Your task to perform on an android device: turn off wifi Image 0: 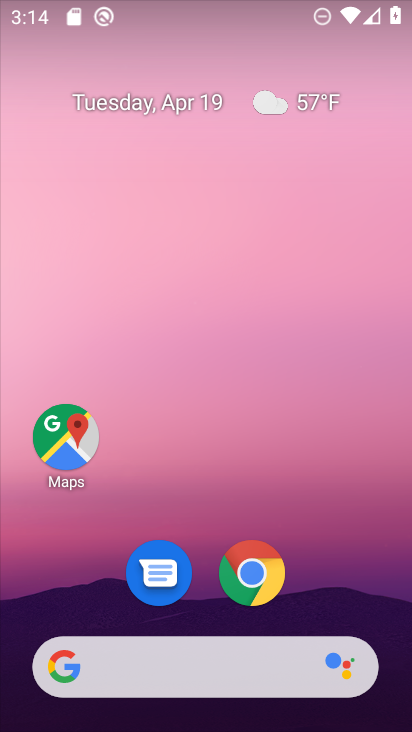
Step 0: drag from (393, 584) to (409, 7)
Your task to perform on an android device: turn off wifi Image 1: 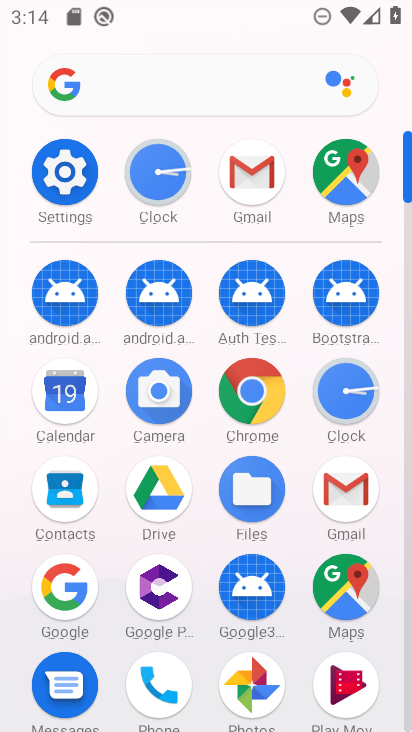
Step 1: click (64, 179)
Your task to perform on an android device: turn off wifi Image 2: 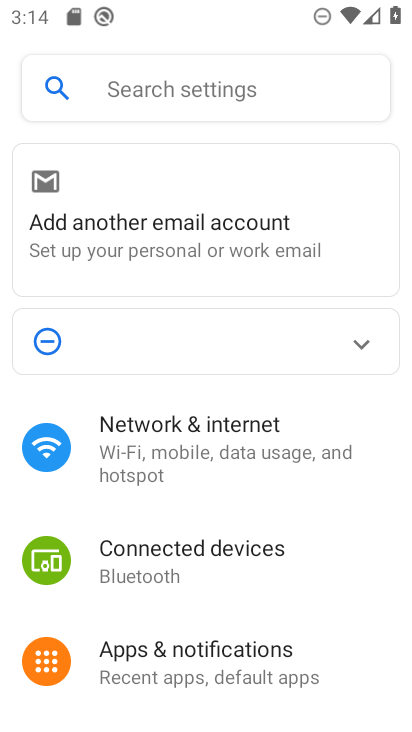
Step 2: click (196, 442)
Your task to perform on an android device: turn off wifi Image 3: 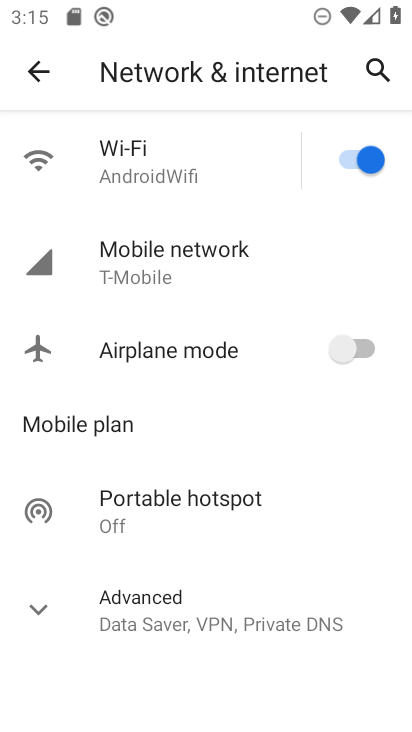
Step 3: click (367, 159)
Your task to perform on an android device: turn off wifi Image 4: 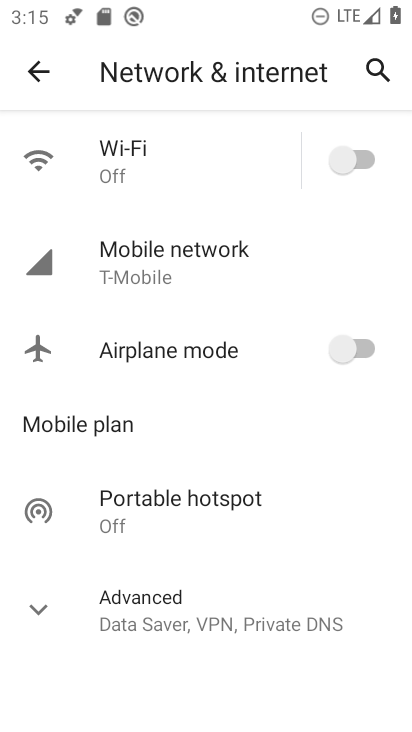
Step 4: task complete